Your task to perform on an android device: Go to eBay Image 0: 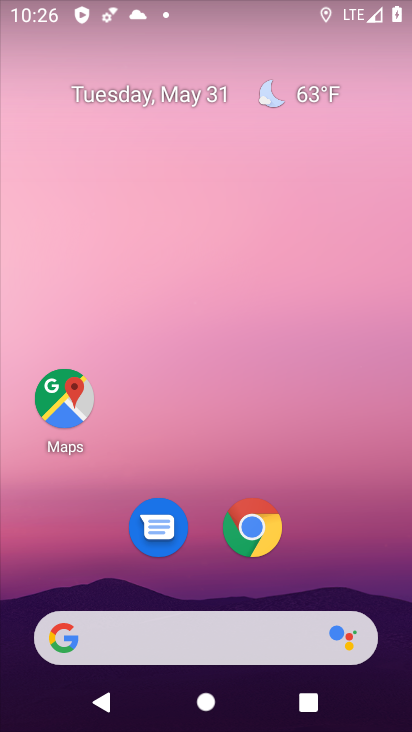
Step 0: click (265, 530)
Your task to perform on an android device: Go to eBay Image 1: 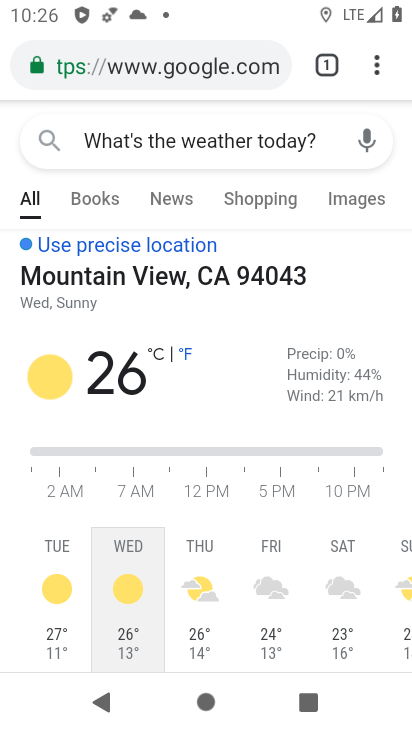
Step 1: click (252, 75)
Your task to perform on an android device: Go to eBay Image 2: 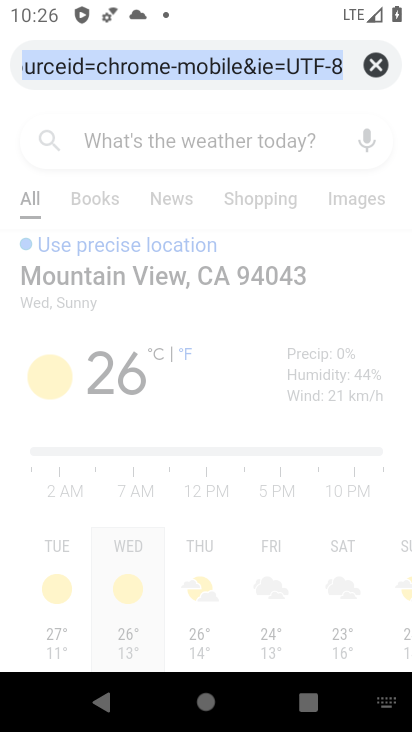
Step 2: type "eBay"
Your task to perform on an android device: Go to eBay Image 3: 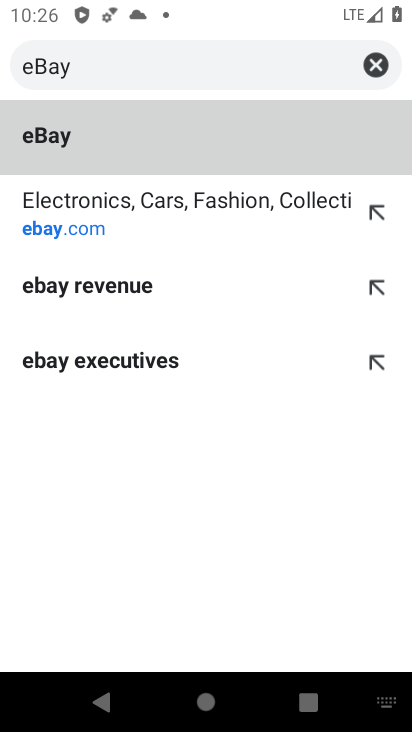
Step 3: click (71, 232)
Your task to perform on an android device: Go to eBay Image 4: 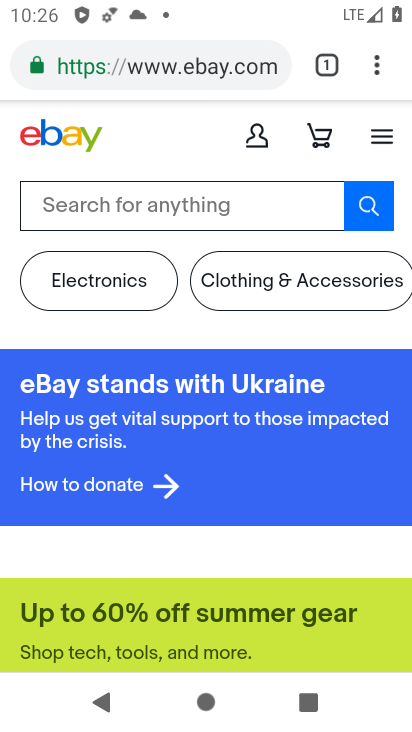
Step 4: task complete